Your task to perform on an android device: turn notification dots on Image 0: 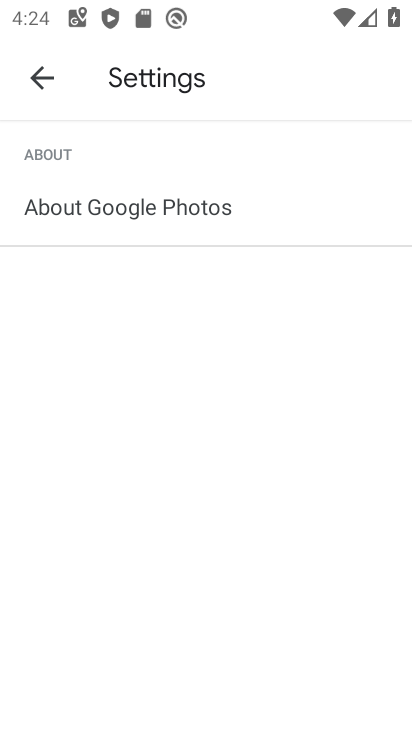
Step 0: press back button
Your task to perform on an android device: turn notification dots on Image 1: 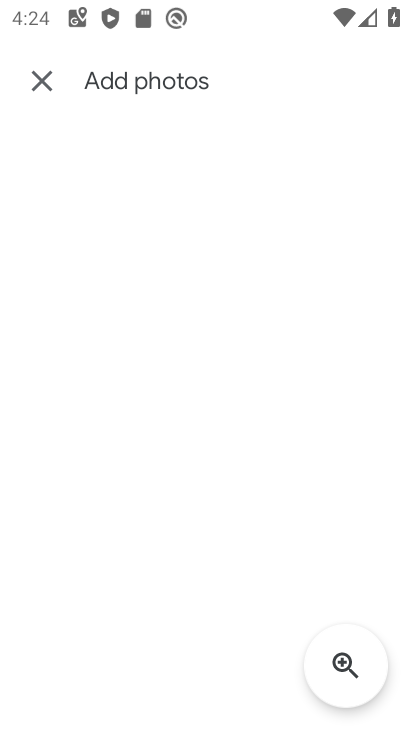
Step 1: press back button
Your task to perform on an android device: turn notification dots on Image 2: 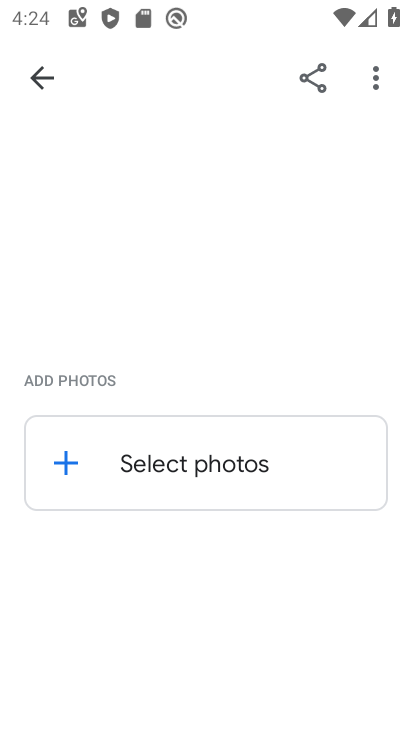
Step 2: press home button
Your task to perform on an android device: turn notification dots on Image 3: 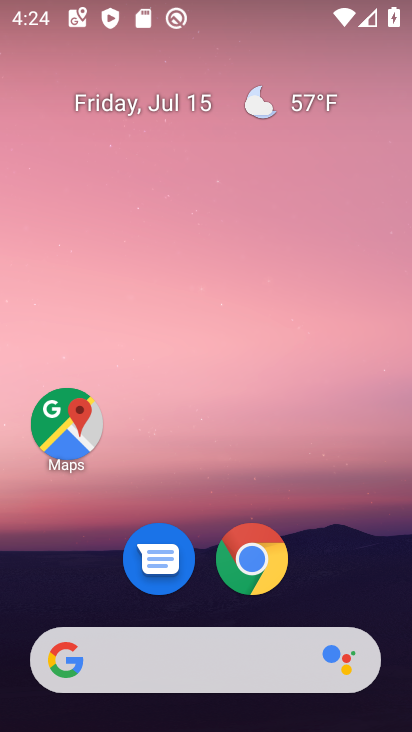
Step 3: drag from (71, 623) to (170, 6)
Your task to perform on an android device: turn notification dots on Image 4: 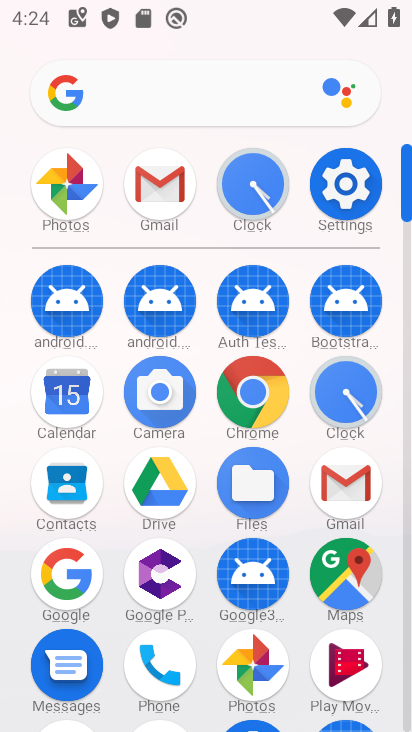
Step 4: click (344, 191)
Your task to perform on an android device: turn notification dots on Image 5: 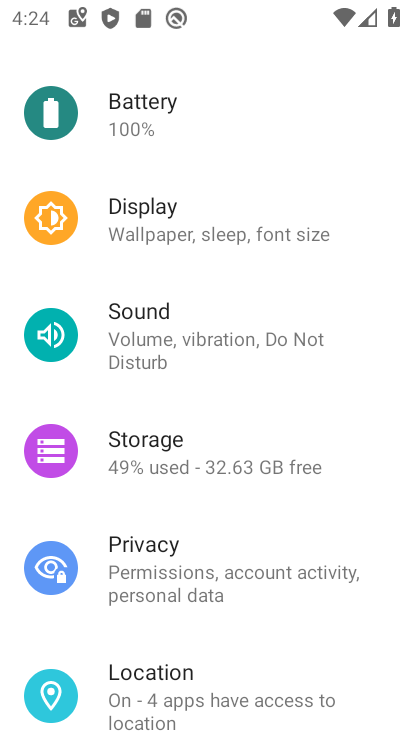
Step 5: drag from (247, 172) to (216, 725)
Your task to perform on an android device: turn notification dots on Image 6: 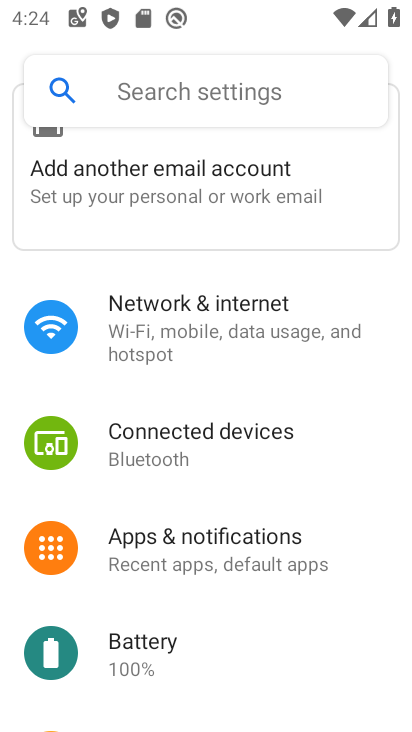
Step 6: click (206, 554)
Your task to perform on an android device: turn notification dots on Image 7: 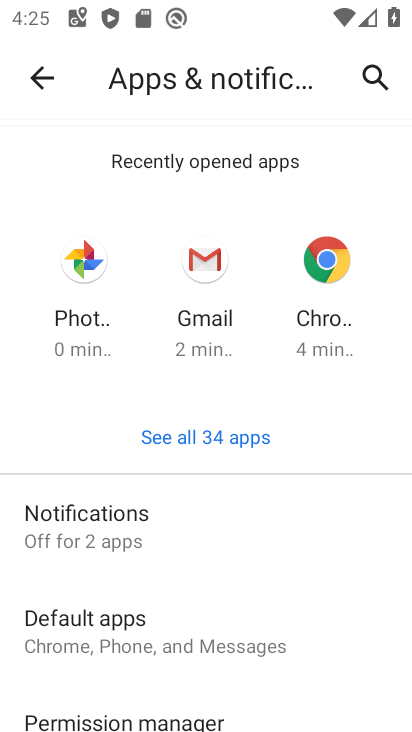
Step 7: click (157, 538)
Your task to perform on an android device: turn notification dots on Image 8: 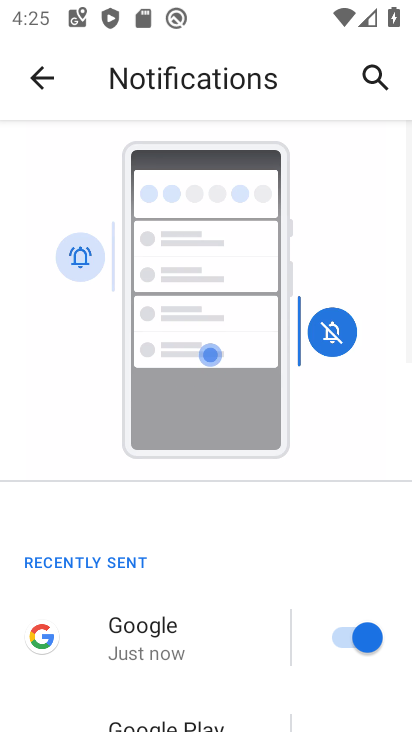
Step 8: drag from (169, 676) to (248, 100)
Your task to perform on an android device: turn notification dots on Image 9: 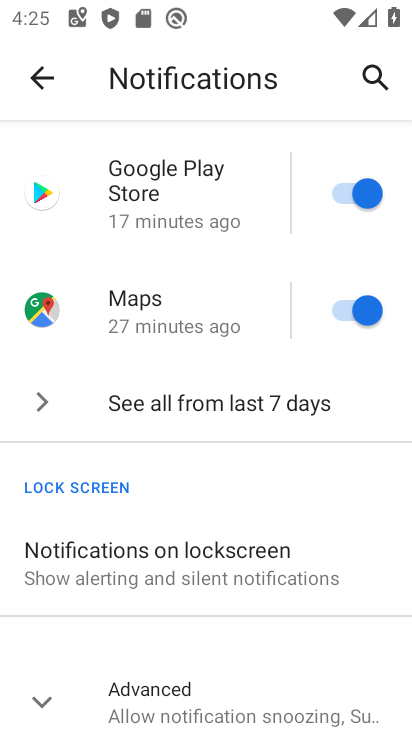
Step 9: drag from (180, 697) to (277, 180)
Your task to perform on an android device: turn notification dots on Image 10: 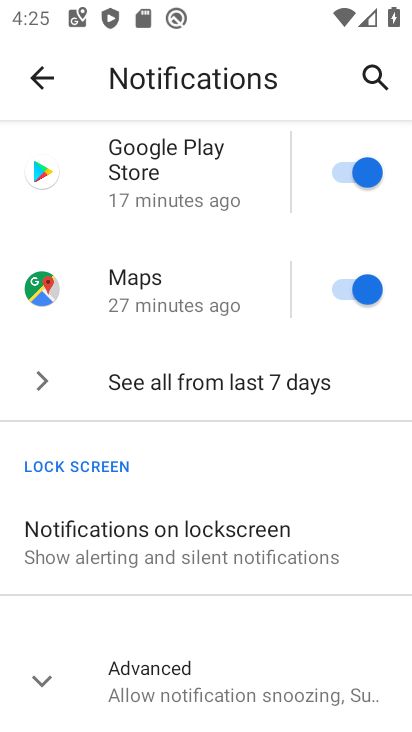
Step 10: click (154, 675)
Your task to perform on an android device: turn notification dots on Image 11: 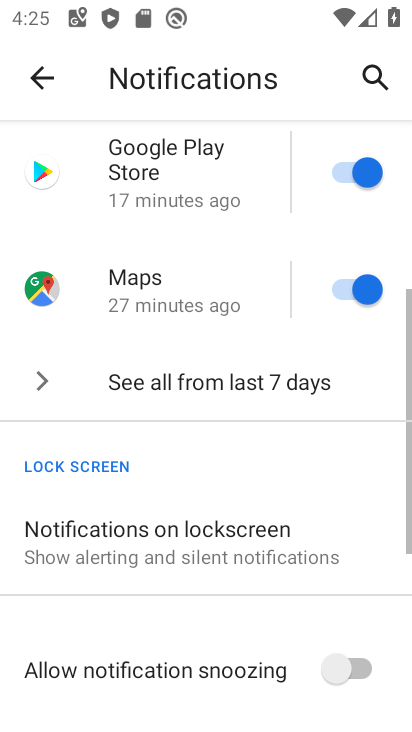
Step 11: drag from (161, 678) to (255, 327)
Your task to perform on an android device: turn notification dots on Image 12: 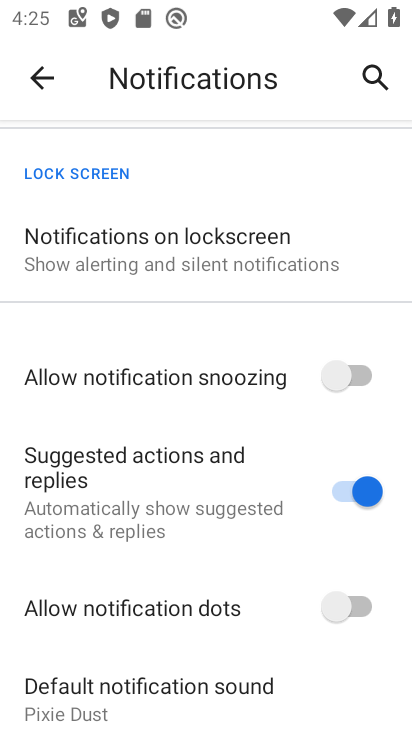
Step 12: click (360, 602)
Your task to perform on an android device: turn notification dots on Image 13: 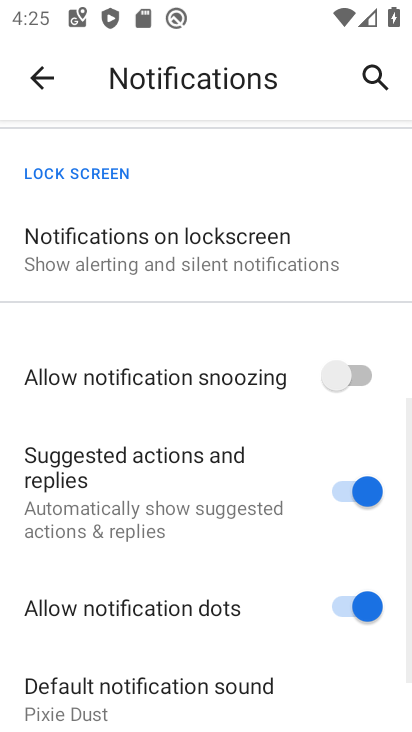
Step 13: task complete